Your task to perform on an android device: Add razer kraken to the cart on bestbuy.com, then select checkout. Image 0: 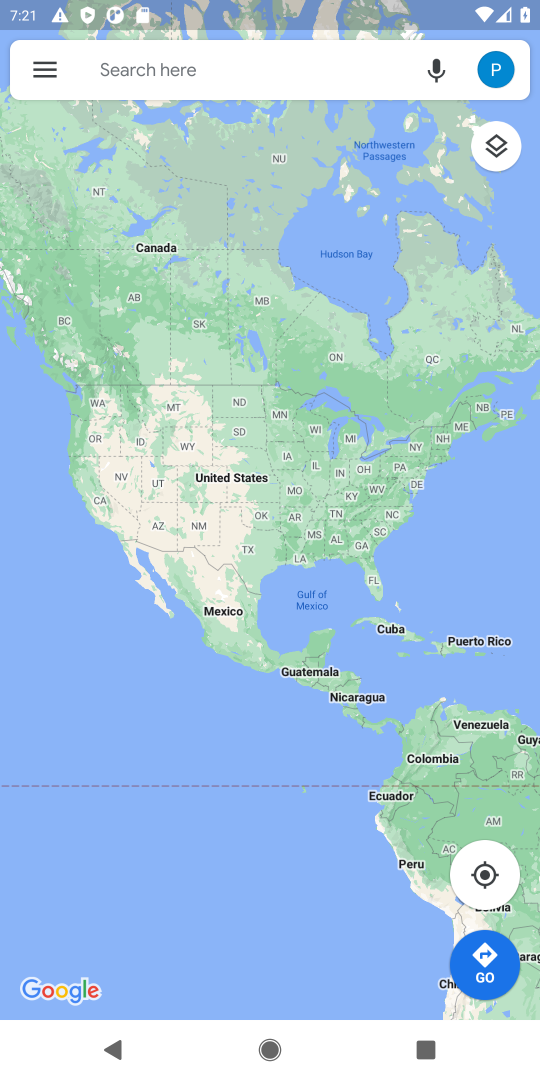
Step 0: press home button
Your task to perform on an android device: Add razer kraken to the cart on bestbuy.com, then select checkout. Image 1: 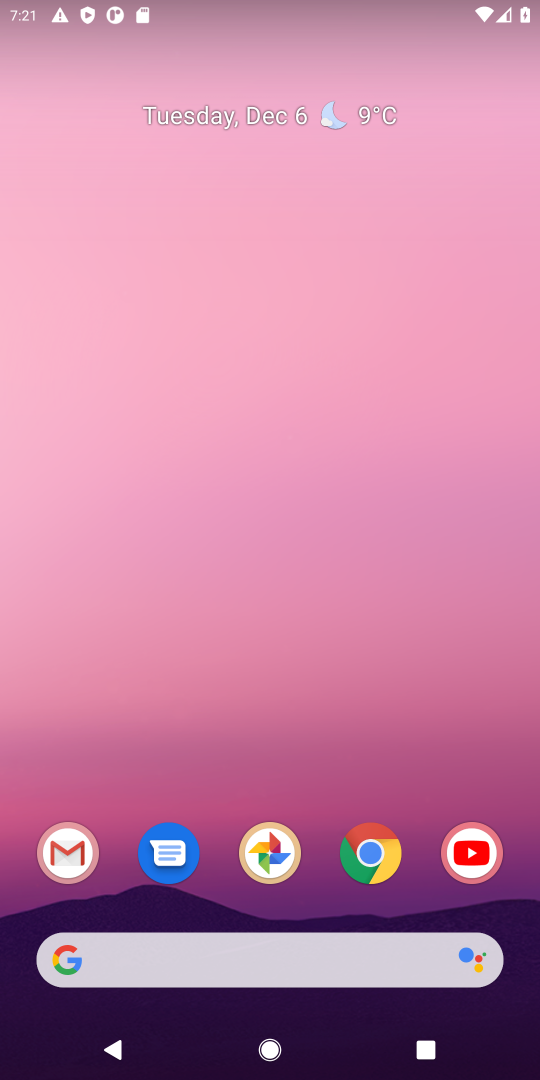
Step 1: click (385, 841)
Your task to perform on an android device: Add razer kraken to the cart on bestbuy.com, then select checkout. Image 2: 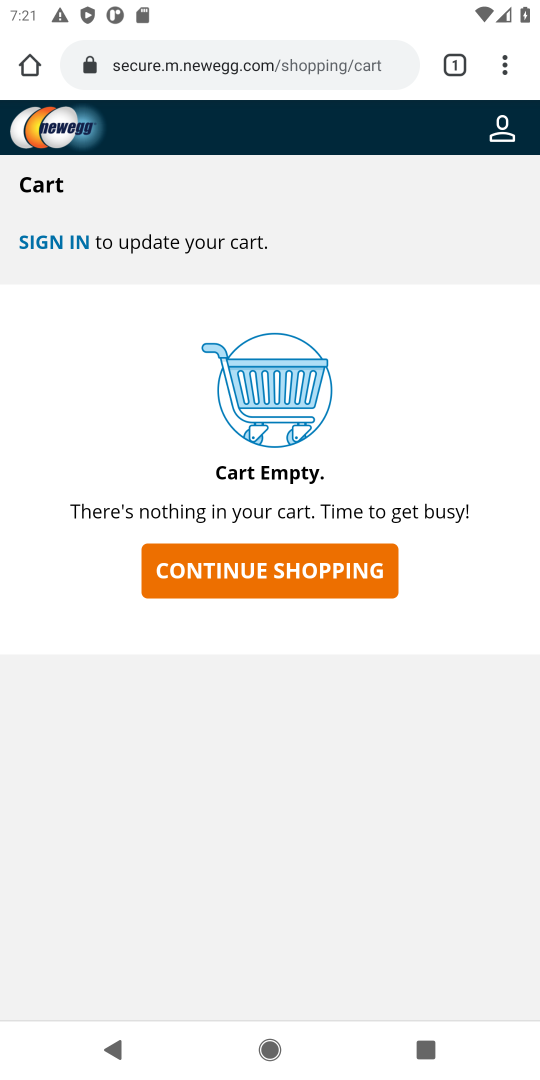
Step 2: click (316, 50)
Your task to perform on an android device: Add razer kraken to the cart on bestbuy.com, then select checkout. Image 3: 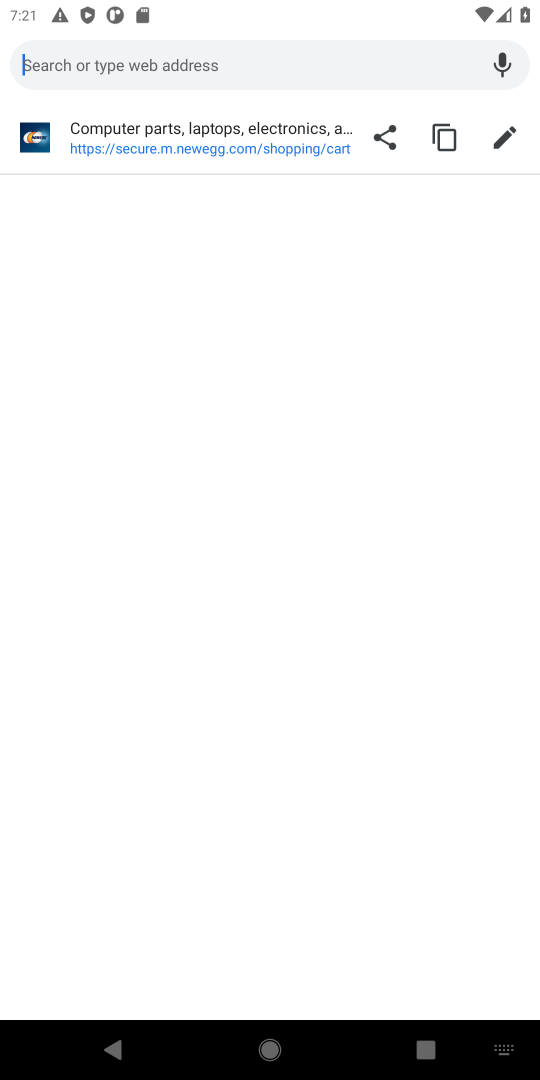
Step 3: type "bestbuy"
Your task to perform on an android device: Add razer kraken to the cart on bestbuy.com, then select checkout. Image 4: 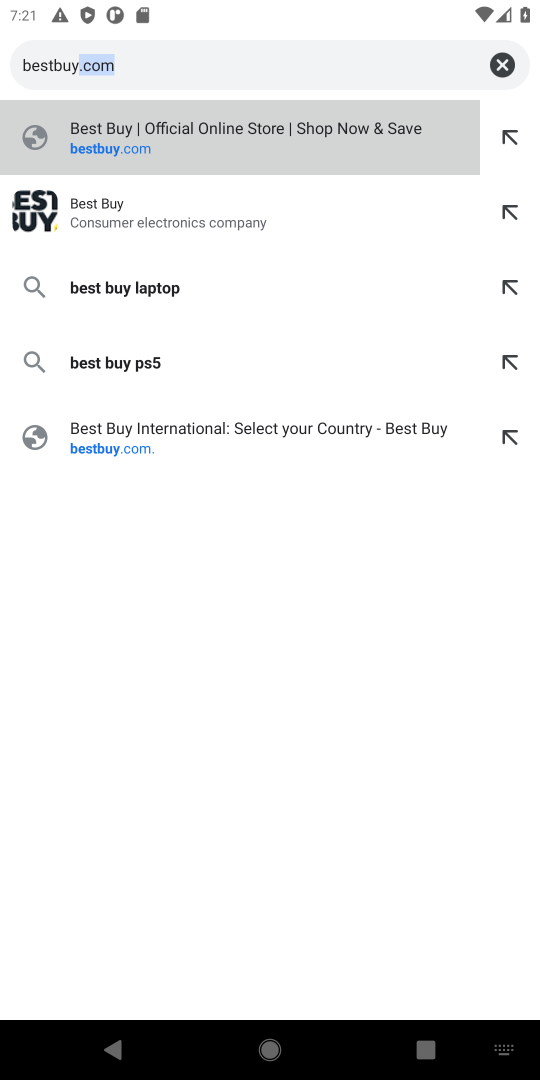
Step 4: click (141, 148)
Your task to perform on an android device: Add razer kraken to the cart on bestbuy.com, then select checkout. Image 5: 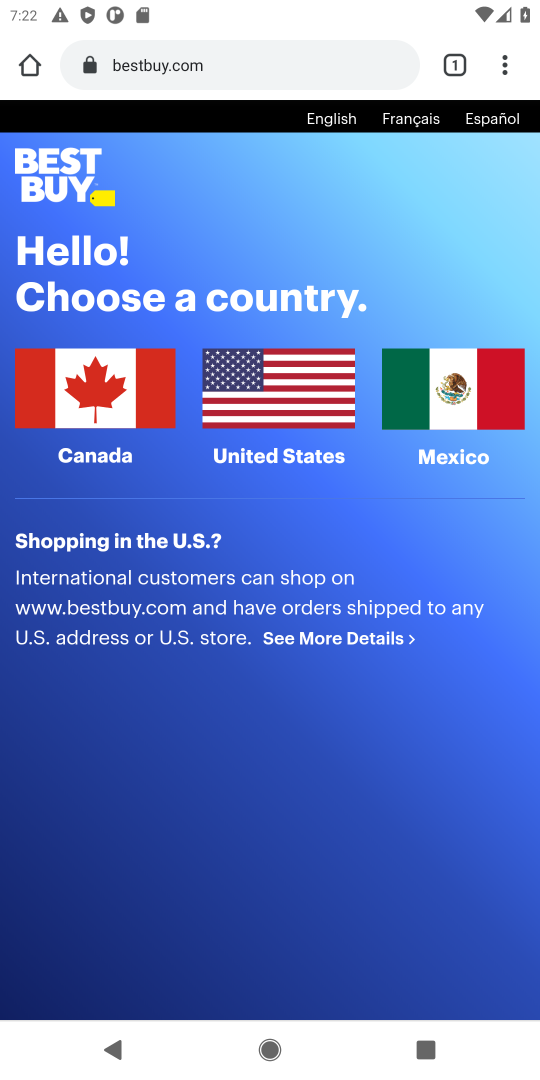
Step 5: click (258, 412)
Your task to perform on an android device: Add razer kraken to the cart on bestbuy.com, then select checkout. Image 6: 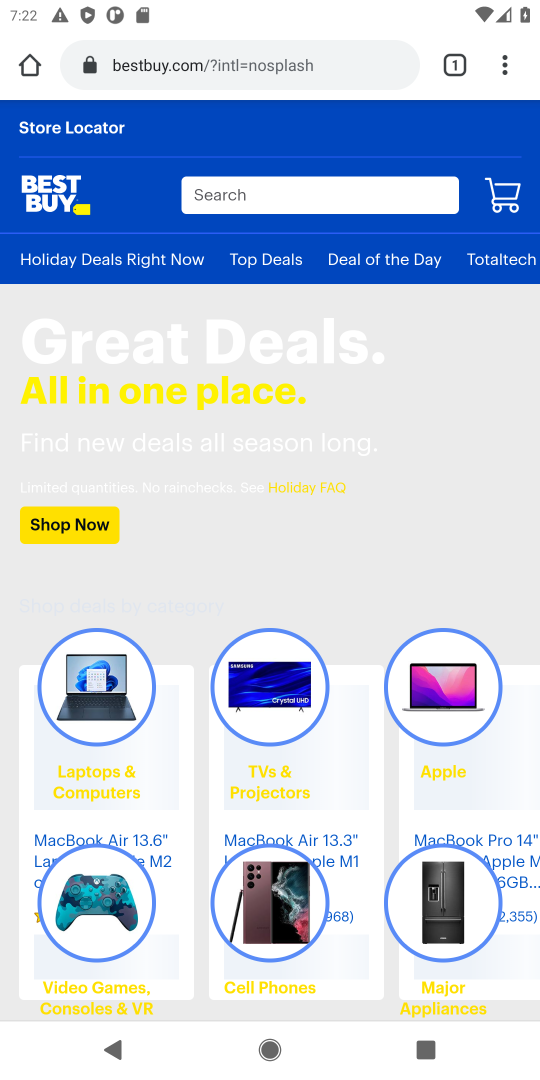
Step 6: click (349, 189)
Your task to perform on an android device: Add razer kraken to the cart on bestbuy.com, then select checkout. Image 7: 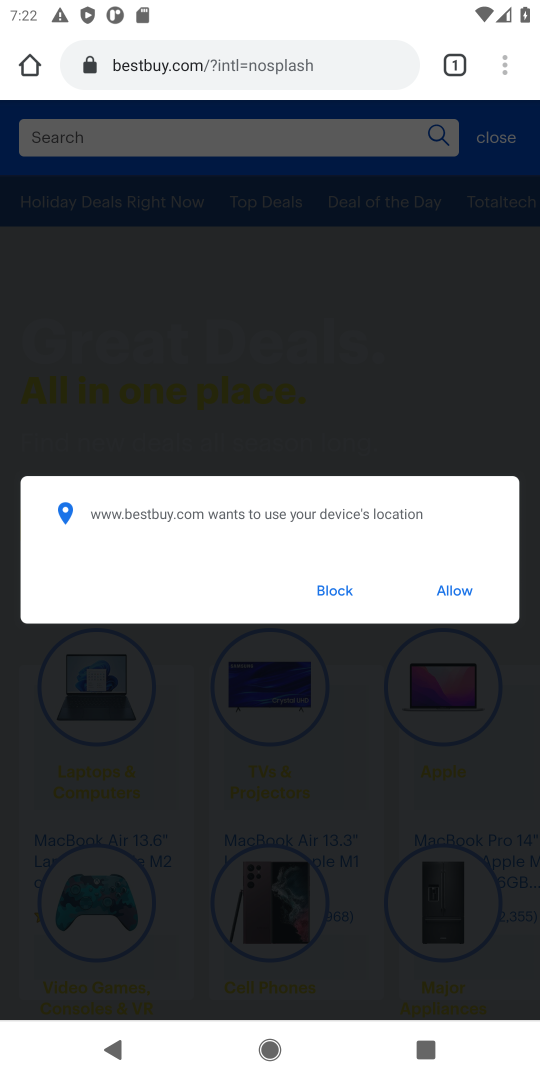
Step 7: type "razer kraken"
Your task to perform on an android device: Add razer kraken to the cart on bestbuy.com, then select checkout. Image 8: 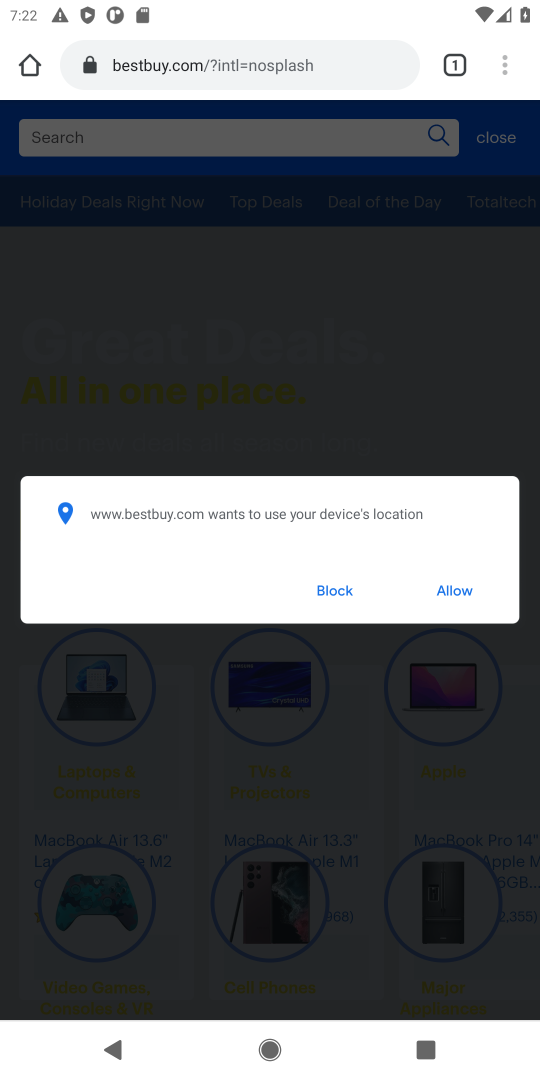
Step 8: click (345, 584)
Your task to perform on an android device: Add razer kraken to the cart on bestbuy.com, then select checkout. Image 9: 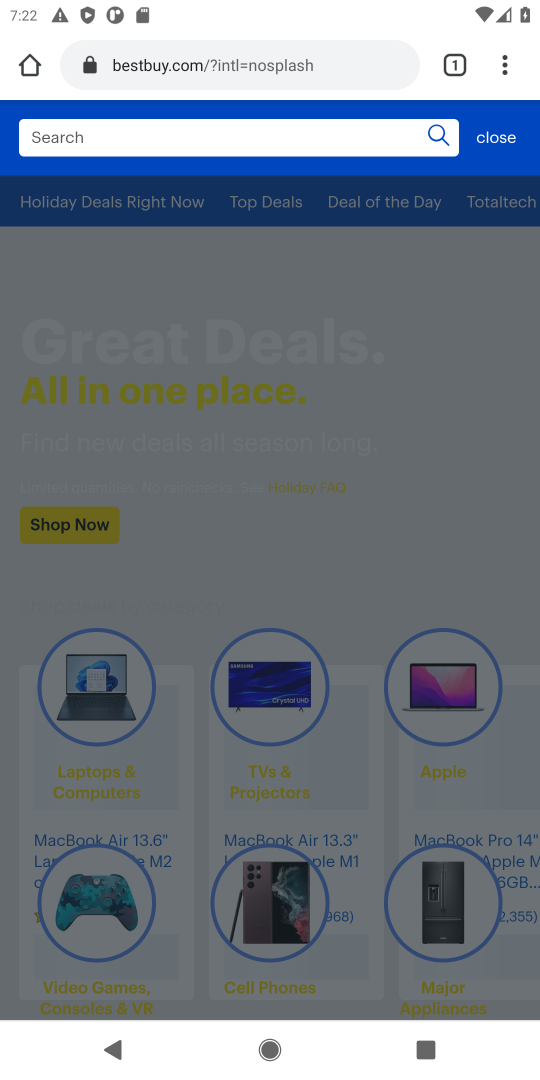
Step 9: click (200, 129)
Your task to perform on an android device: Add razer kraken to the cart on bestbuy.com, then select checkout. Image 10: 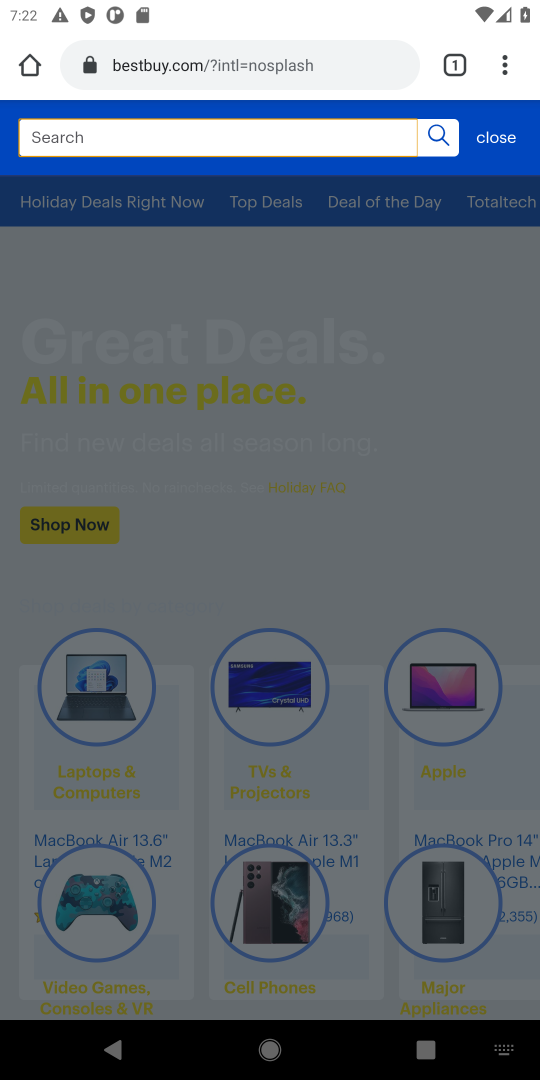
Step 10: type "razer kraken"
Your task to perform on an android device: Add razer kraken to the cart on bestbuy.com, then select checkout. Image 11: 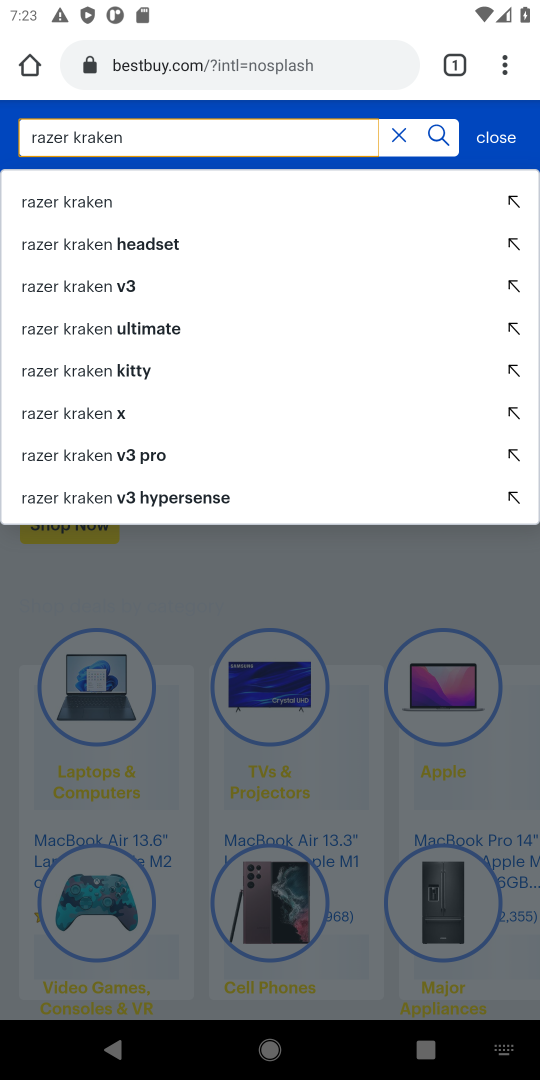
Step 11: click (81, 207)
Your task to perform on an android device: Add razer kraken to the cart on bestbuy.com, then select checkout. Image 12: 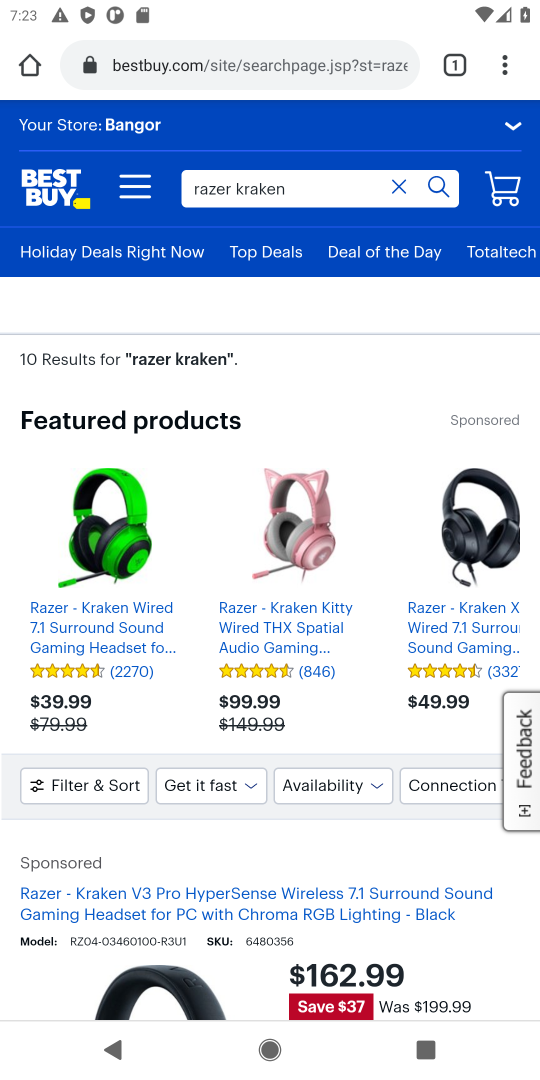
Step 12: click (147, 965)
Your task to perform on an android device: Add razer kraken to the cart on bestbuy.com, then select checkout. Image 13: 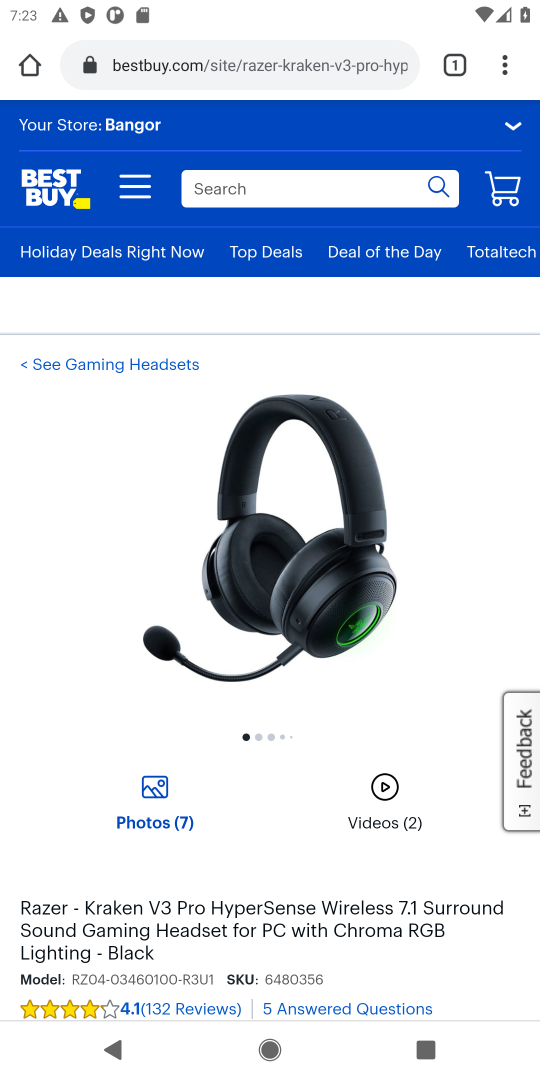
Step 13: drag from (386, 947) to (358, 268)
Your task to perform on an android device: Add razer kraken to the cart on bestbuy.com, then select checkout. Image 14: 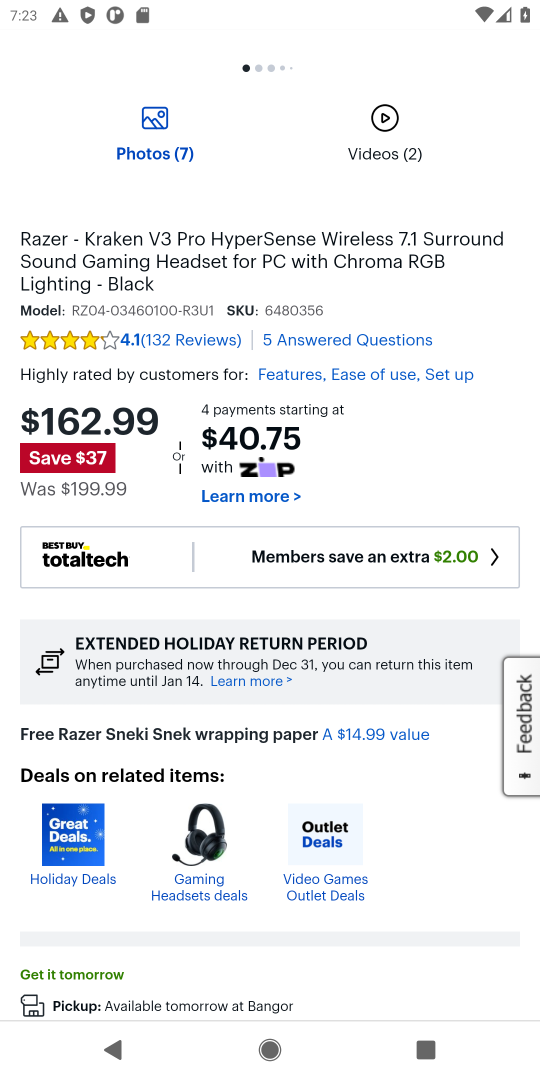
Step 14: drag from (345, 826) to (332, 282)
Your task to perform on an android device: Add razer kraken to the cart on bestbuy.com, then select checkout. Image 15: 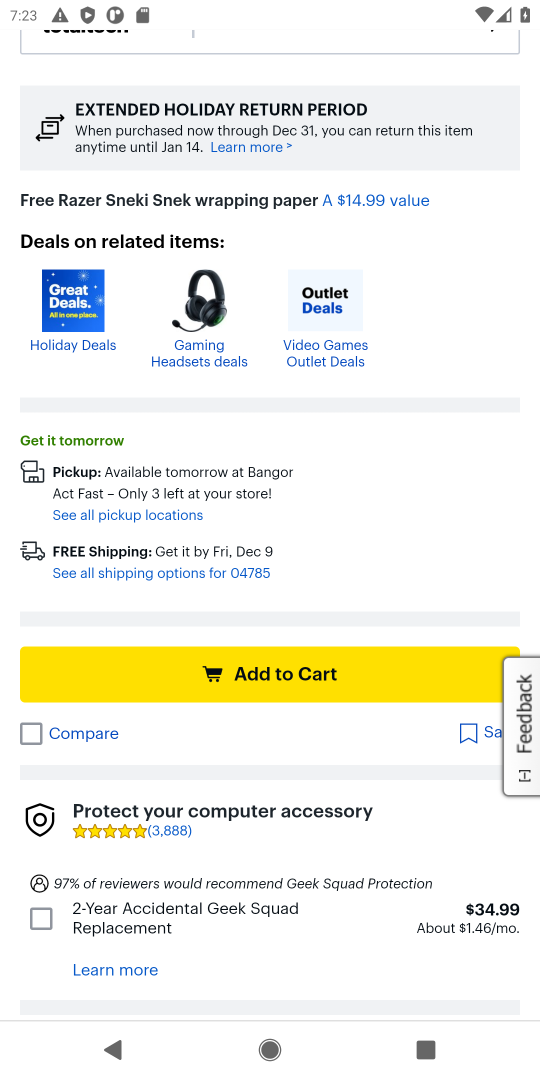
Step 15: click (272, 677)
Your task to perform on an android device: Add razer kraken to the cart on bestbuy.com, then select checkout. Image 16: 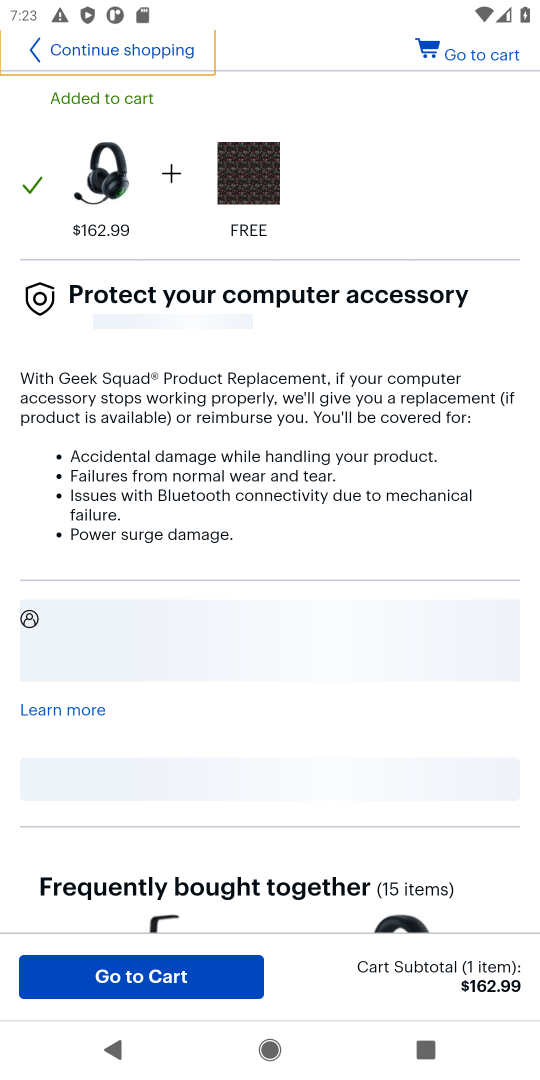
Step 16: click (175, 979)
Your task to perform on an android device: Add razer kraken to the cart on bestbuy.com, then select checkout. Image 17: 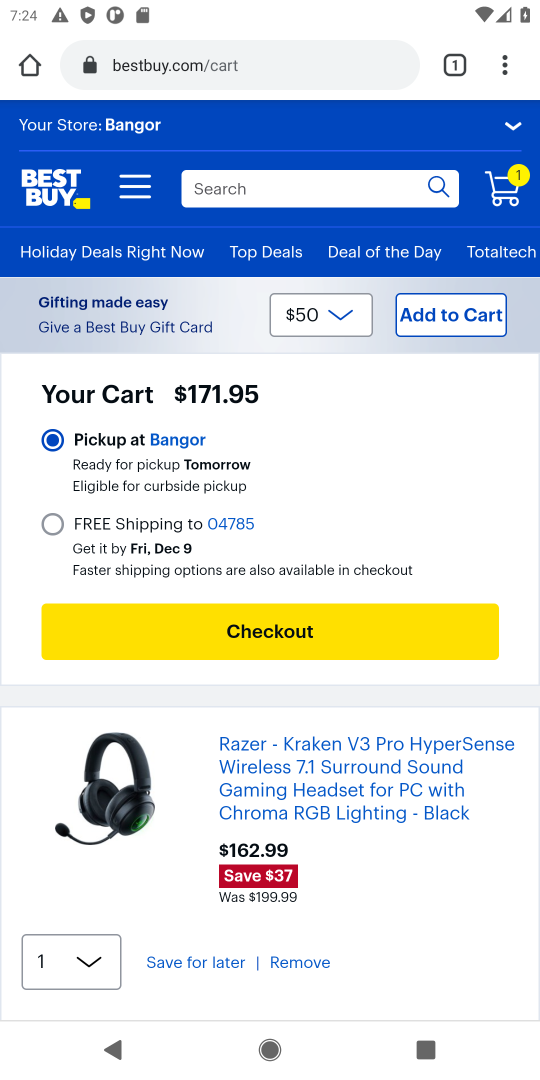
Step 17: click (258, 626)
Your task to perform on an android device: Add razer kraken to the cart on bestbuy.com, then select checkout. Image 18: 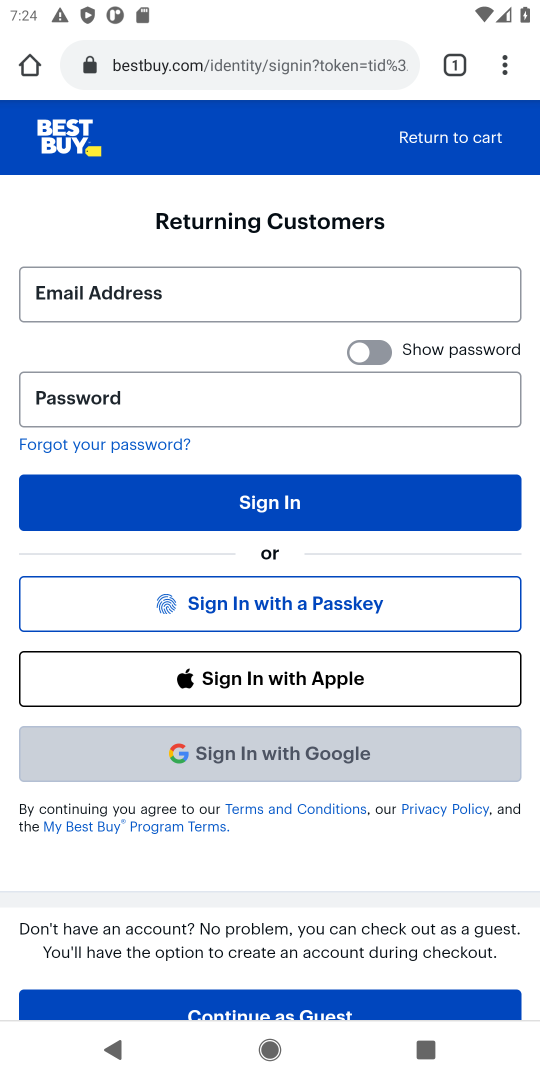
Step 18: task complete